Your task to perform on an android device: Go to battery settings Image 0: 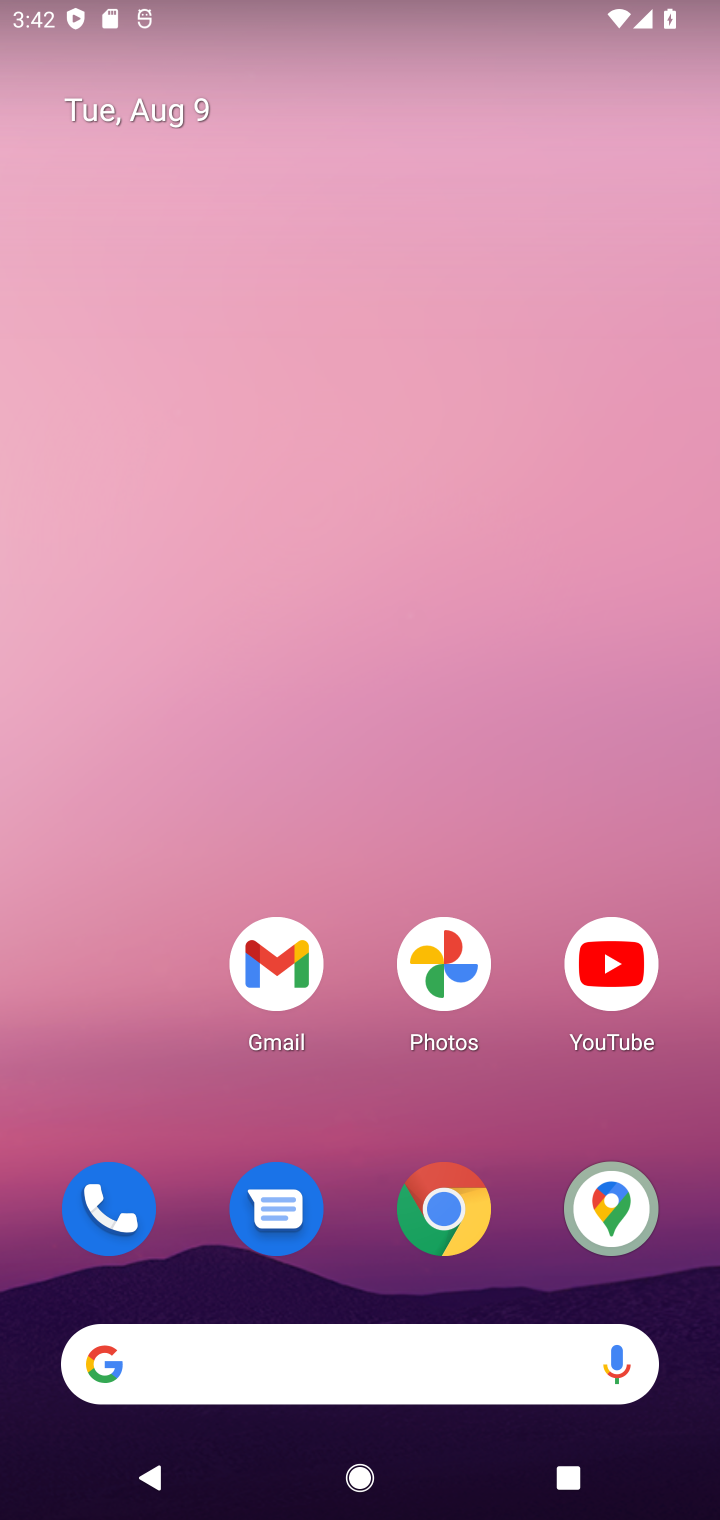
Step 0: drag from (158, 1106) to (114, 280)
Your task to perform on an android device: Go to battery settings Image 1: 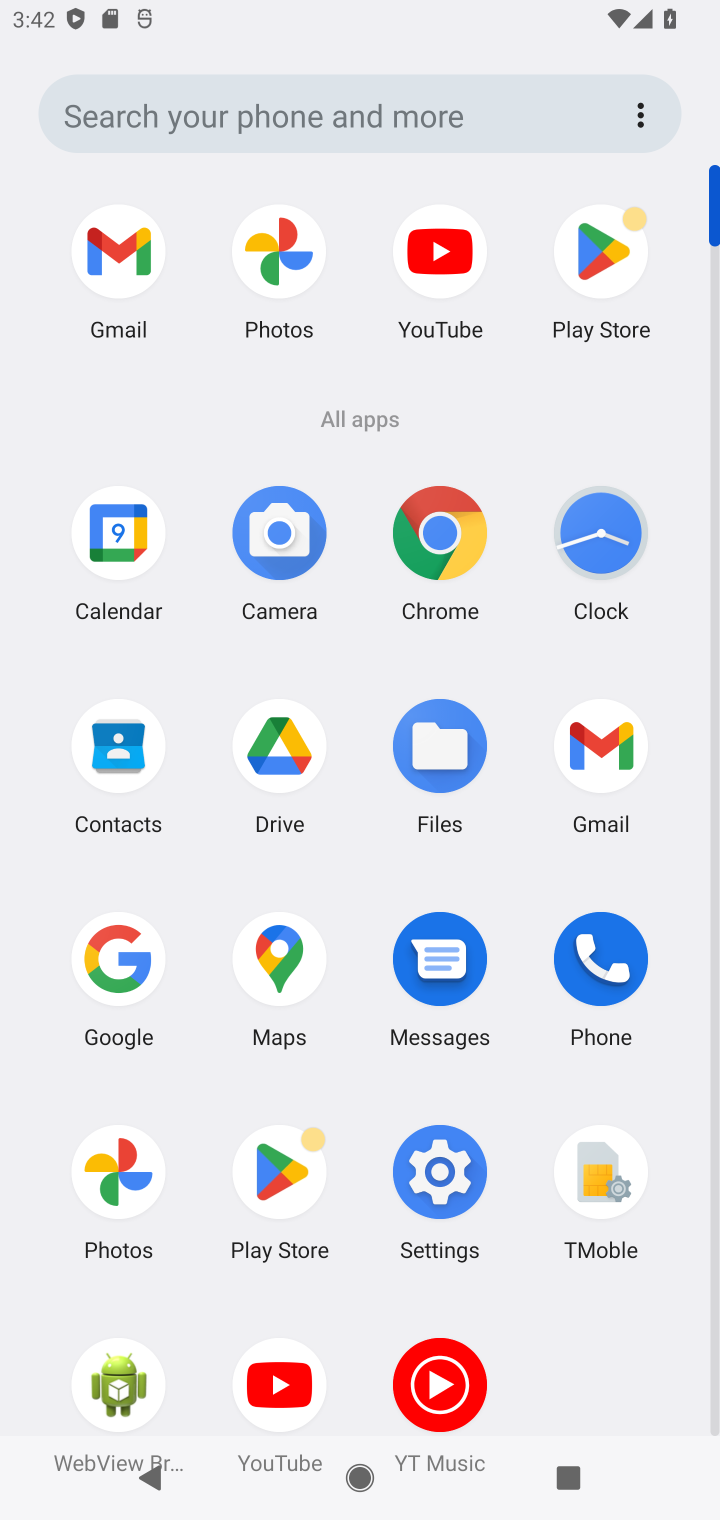
Step 1: click (440, 1187)
Your task to perform on an android device: Go to battery settings Image 2: 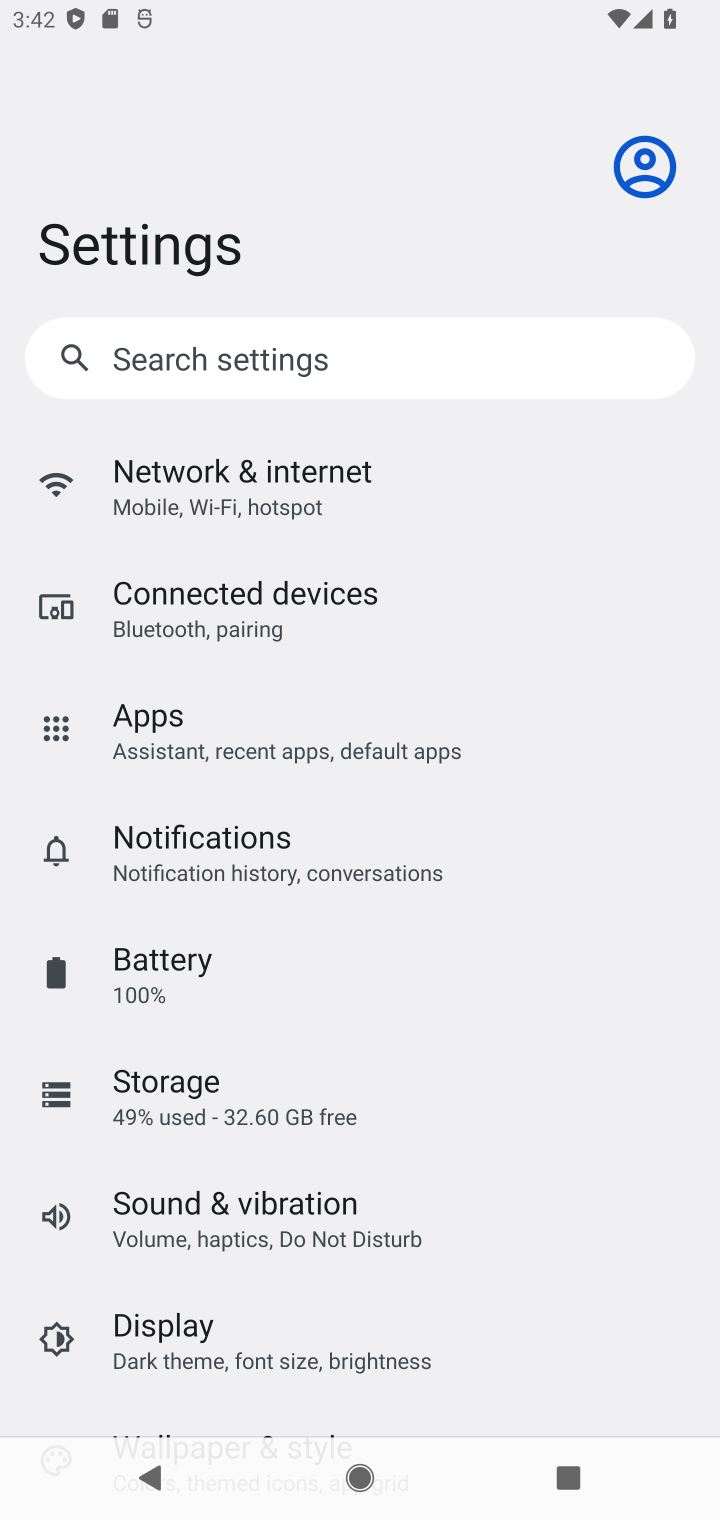
Step 2: click (151, 960)
Your task to perform on an android device: Go to battery settings Image 3: 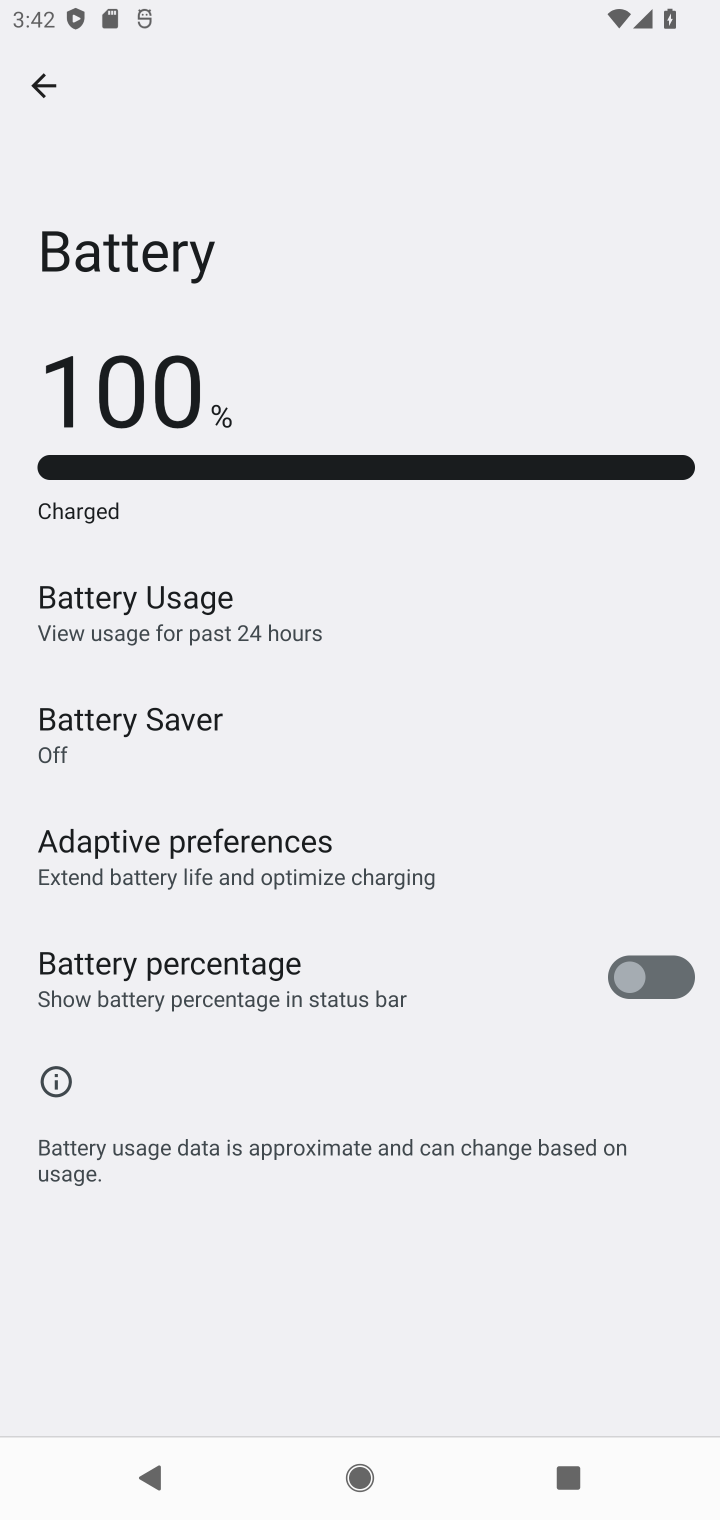
Step 3: task complete